Your task to perform on an android device: check out phone information Image 0: 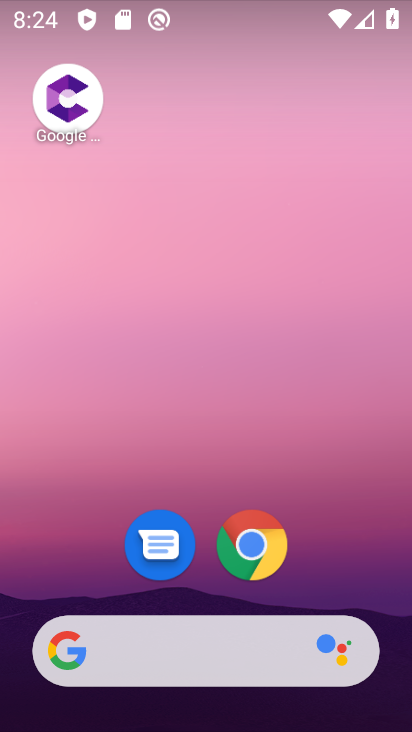
Step 0: drag from (346, 543) to (239, 131)
Your task to perform on an android device: check out phone information Image 1: 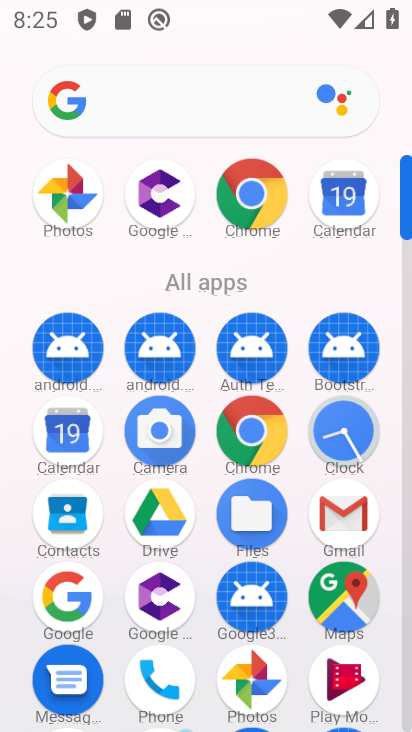
Step 1: click (404, 466)
Your task to perform on an android device: check out phone information Image 2: 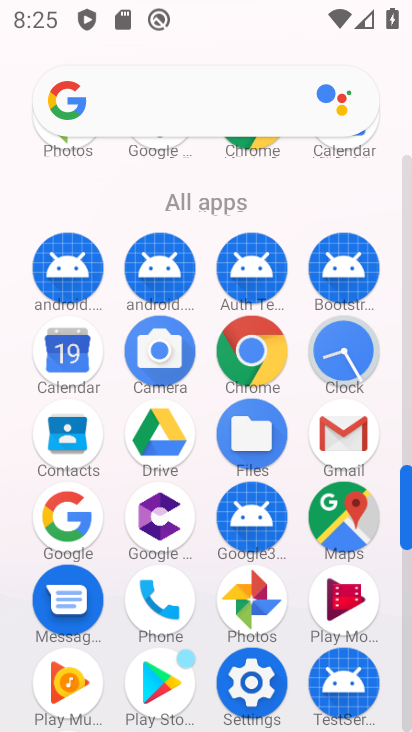
Step 2: click (247, 680)
Your task to perform on an android device: check out phone information Image 3: 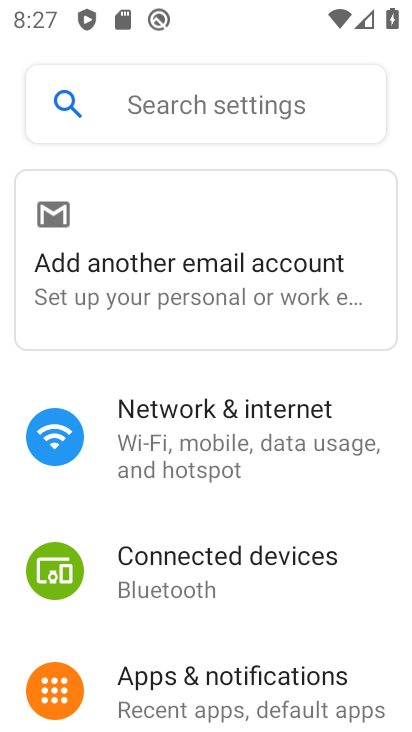
Step 3: task complete